Your task to perform on an android device: What's the weather going to be tomorrow? Image 0: 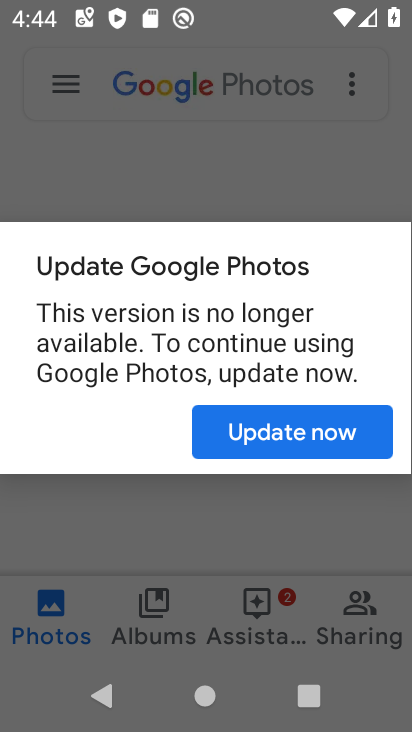
Step 0: press home button
Your task to perform on an android device: What's the weather going to be tomorrow? Image 1: 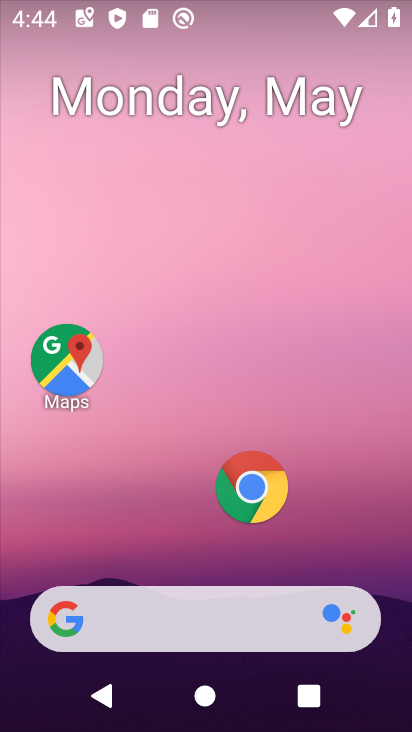
Step 1: click (159, 620)
Your task to perform on an android device: What's the weather going to be tomorrow? Image 2: 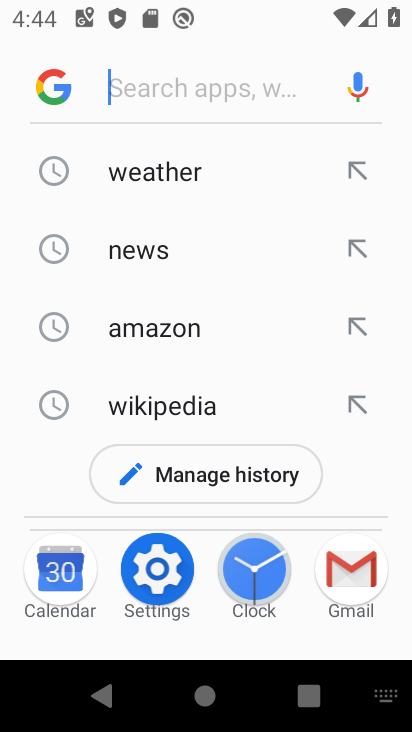
Step 2: click (176, 176)
Your task to perform on an android device: What's the weather going to be tomorrow? Image 3: 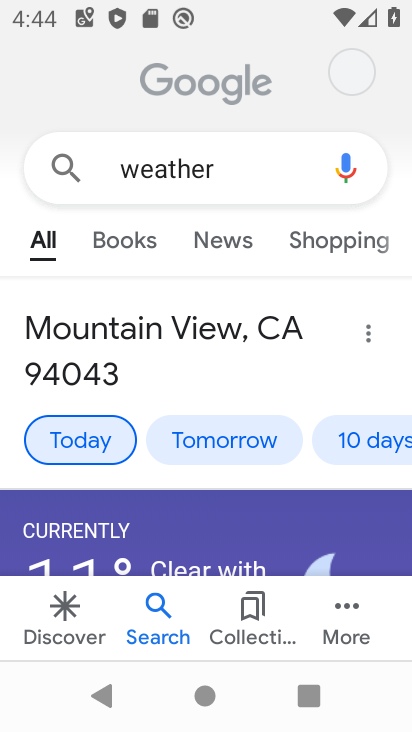
Step 3: click (247, 460)
Your task to perform on an android device: What's the weather going to be tomorrow? Image 4: 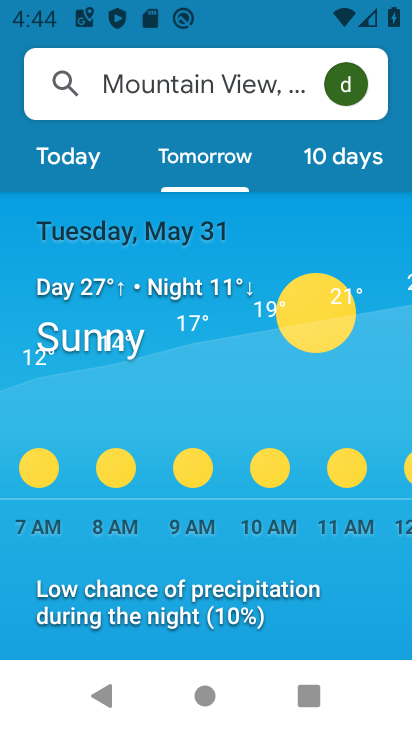
Step 4: task complete